Your task to perform on an android device: turn on the 12-hour format for clock Image 0: 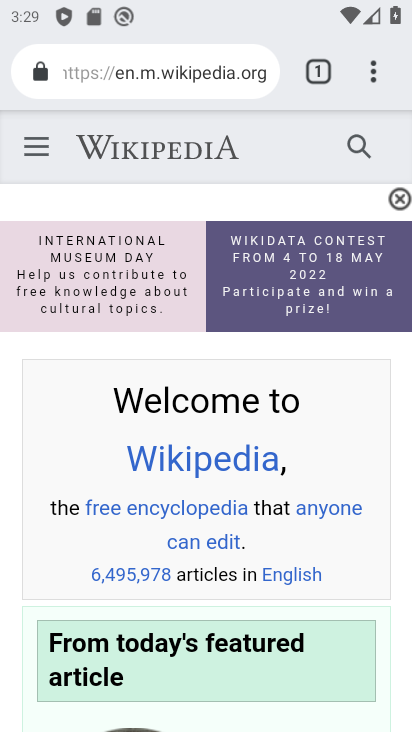
Step 0: press home button
Your task to perform on an android device: turn on the 12-hour format for clock Image 1: 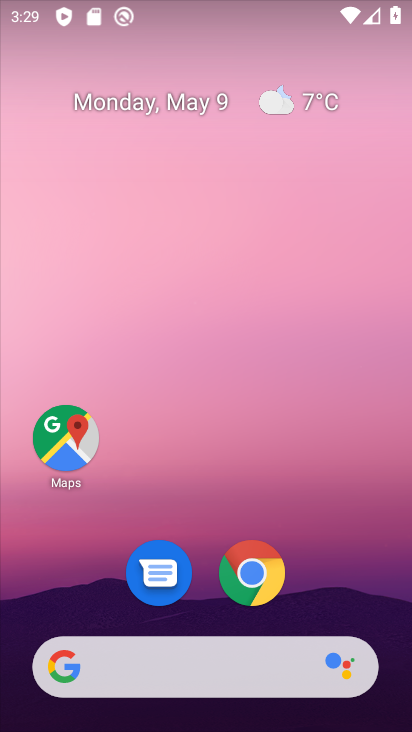
Step 1: drag from (320, 607) to (343, 0)
Your task to perform on an android device: turn on the 12-hour format for clock Image 2: 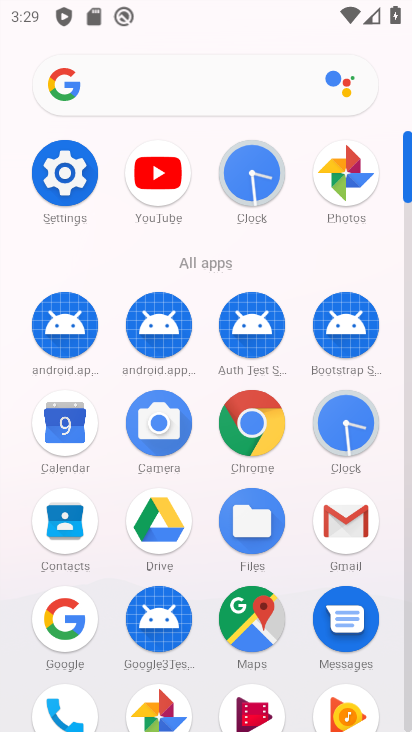
Step 2: click (251, 172)
Your task to perform on an android device: turn on the 12-hour format for clock Image 3: 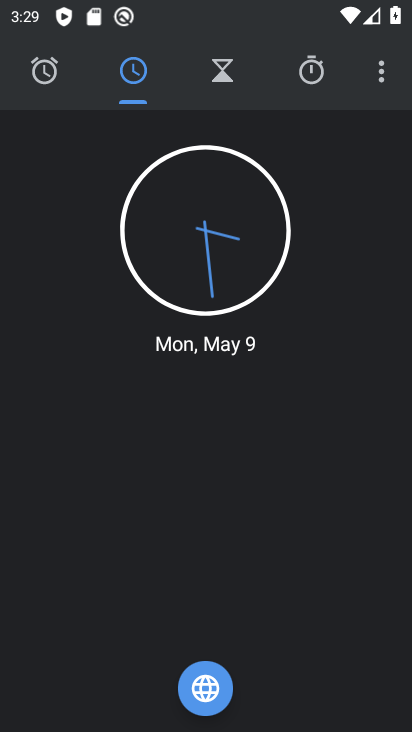
Step 3: click (387, 80)
Your task to perform on an android device: turn on the 12-hour format for clock Image 4: 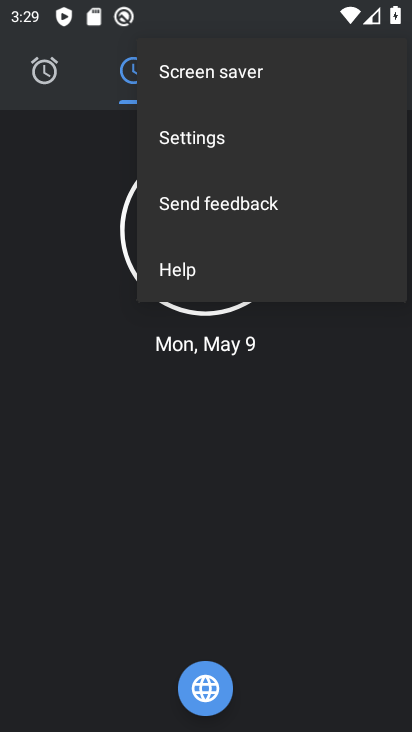
Step 4: click (190, 144)
Your task to perform on an android device: turn on the 12-hour format for clock Image 5: 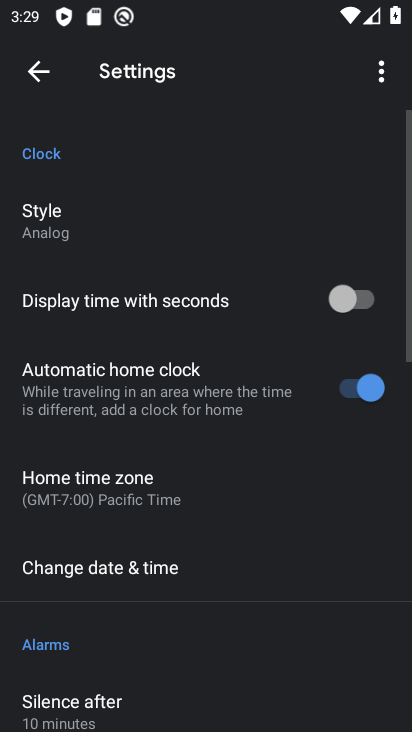
Step 5: click (118, 576)
Your task to perform on an android device: turn on the 12-hour format for clock Image 6: 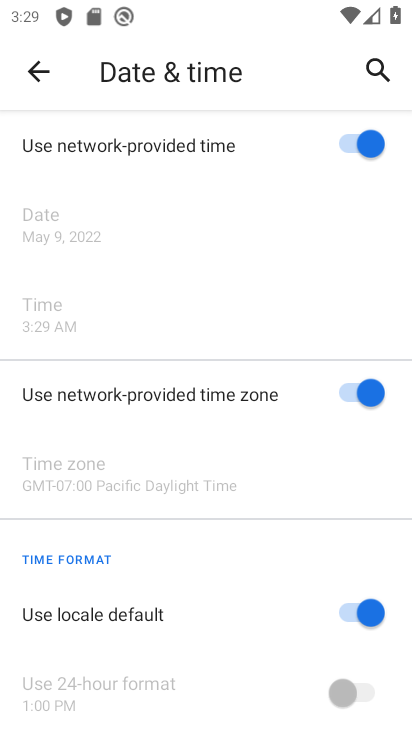
Step 6: task complete